Your task to perform on an android device: add a label to a message in the gmail app Image 0: 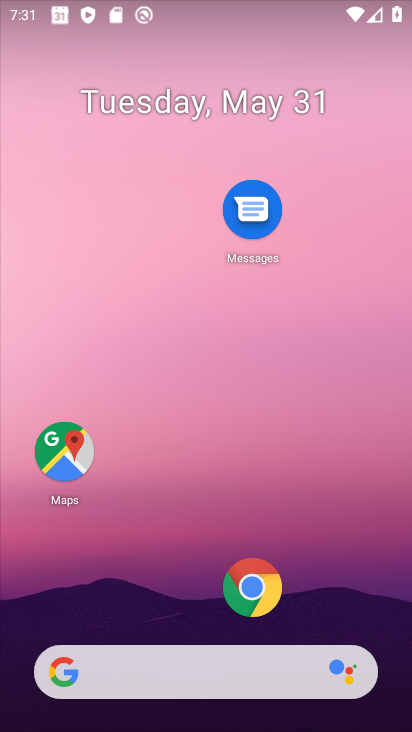
Step 0: drag from (205, 561) to (148, 61)
Your task to perform on an android device: add a label to a message in the gmail app Image 1: 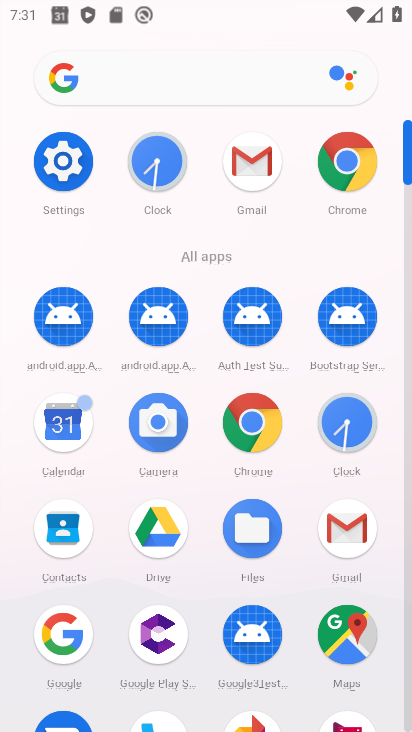
Step 1: click (336, 527)
Your task to perform on an android device: add a label to a message in the gmail app Image 2: 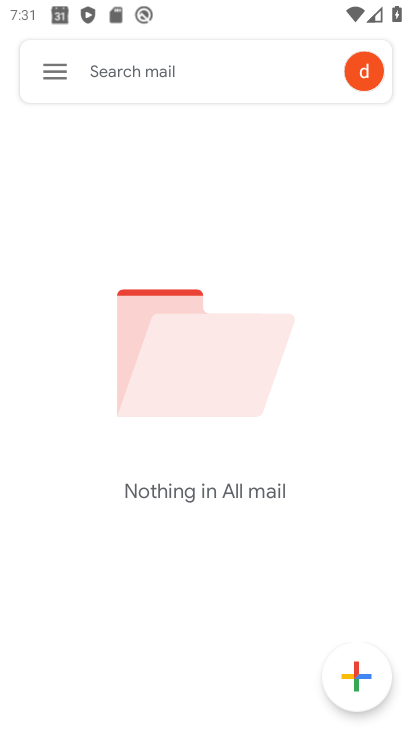
Step 2: task complete